Your task to perform on an android device: toggle airplane mode Image 0: 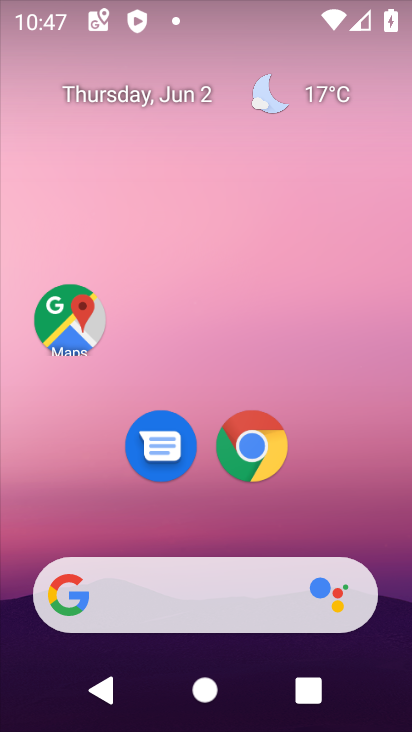
Step 0: drag from (345, 507) to (344, 88)
Your task to perform on an android device: toggle airplane mode Image 1: 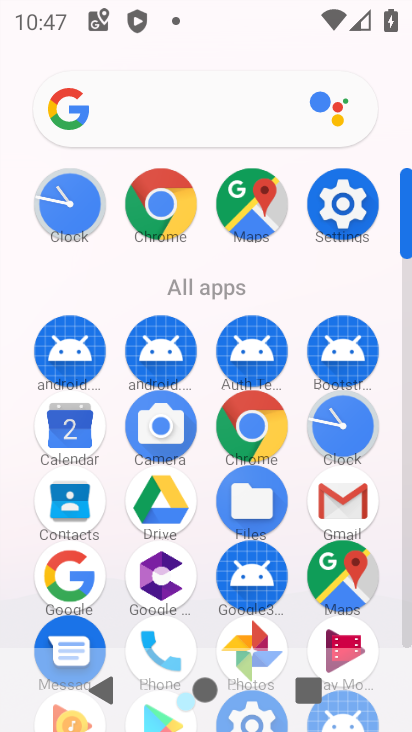
Step 1: click (347, 219)
Your task to perform on an android device: toggle airplane mode Image 2: 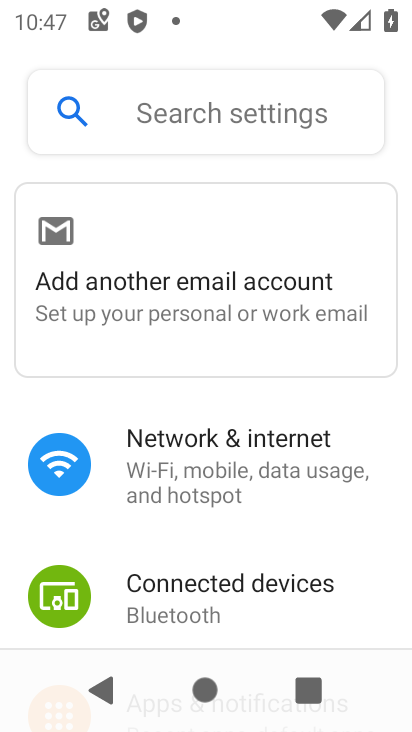
Step 2: drag from (349, 537) to (363, 373)
Your task to perform on an android device: toggle airplane mode Image 3: 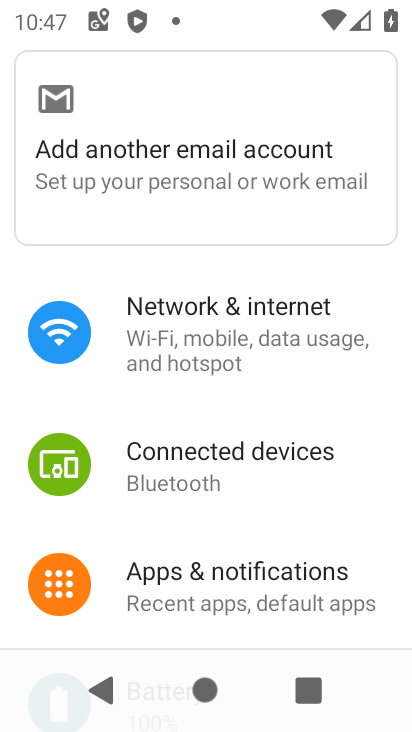
Step 3: drag from (357, 533) to (355, 380)
Your task to perform on an android device: toggle airplane mode Image 4: 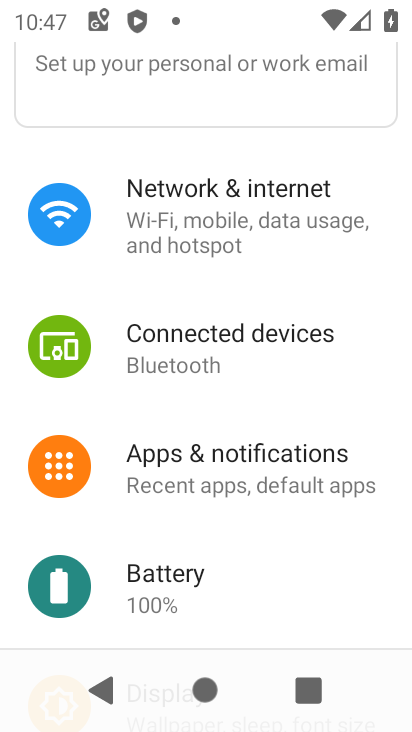
Step 4: drag from (349, 555) to (360, 387)
Your task to perform on an android device: toggle airplane mode Image 5: 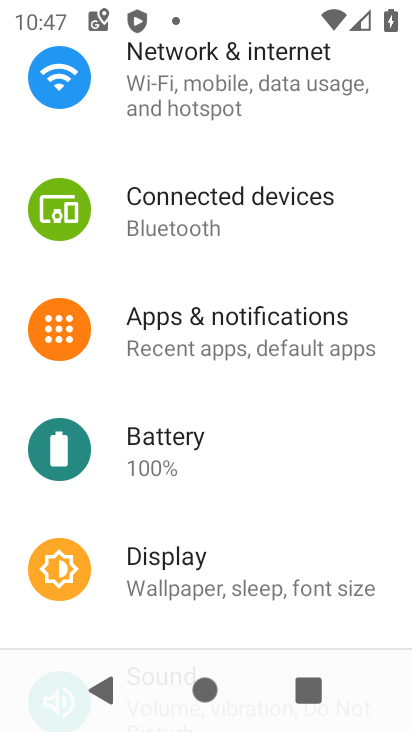
Step 5: drag from (351, 497) to (352, 295)
Your task to perform on an android device: toggle airplane mode Image 6: 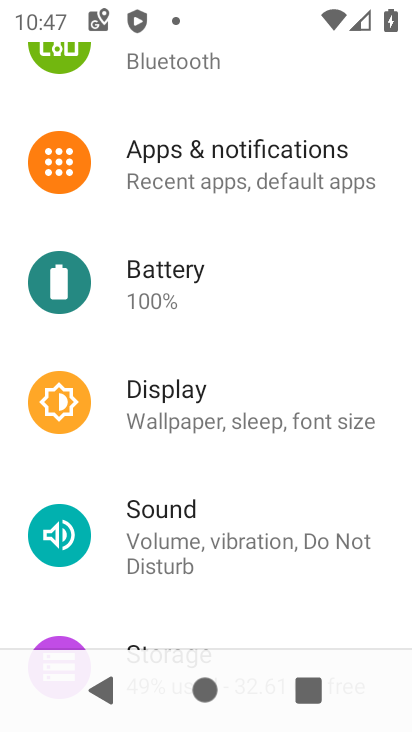
Step 6: drag from (349, 498) to (351, 345)
Your task to perform on an android device: toggle airplane mode Image 7: 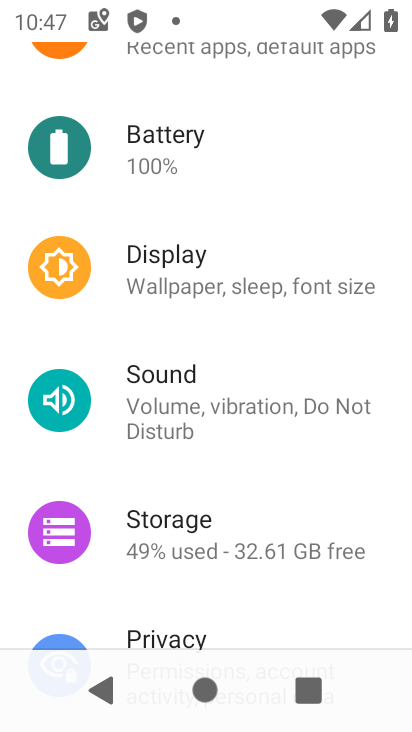
Step 7: drag from (329, 489) to (327, 281)
Your task to perform on an android device: toggle airplane mode Image 8: 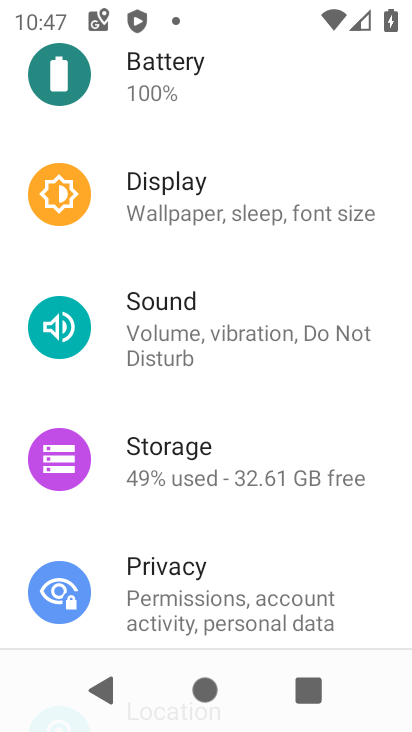
Step 8: drag from (351, 522) to (367, 280)
Your task to perform on an android device: toggle airplane mode Image 9: 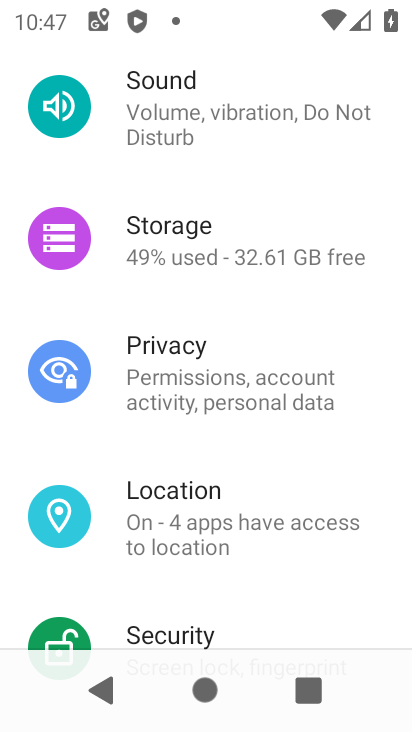
Step 9: drag from (364, 578) to (361, 299)
Your task to perform on an android device: toggle airplane mode Image 10: 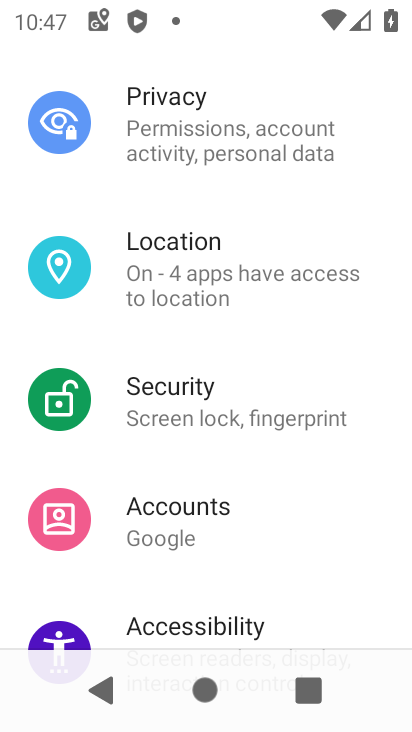
Step 10: drag from (362, 146) to (353, 319)
Your task to perform on an android device: toggle airplane mode Image 11: 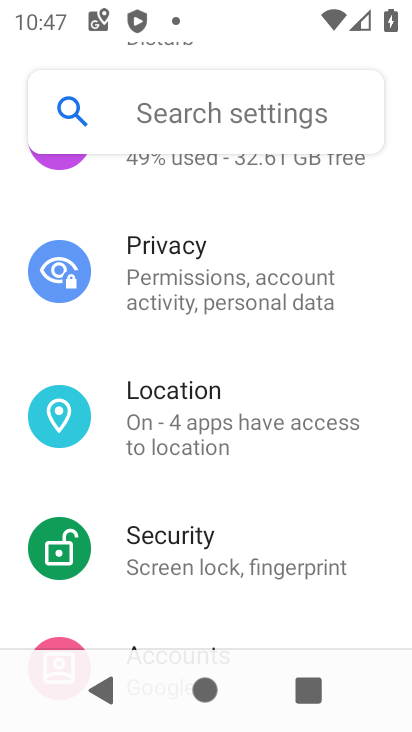
Step 11: drag from (342, 204) to (350, 442)
Your task to perform on an android device: toggle airplane mode Image 12: 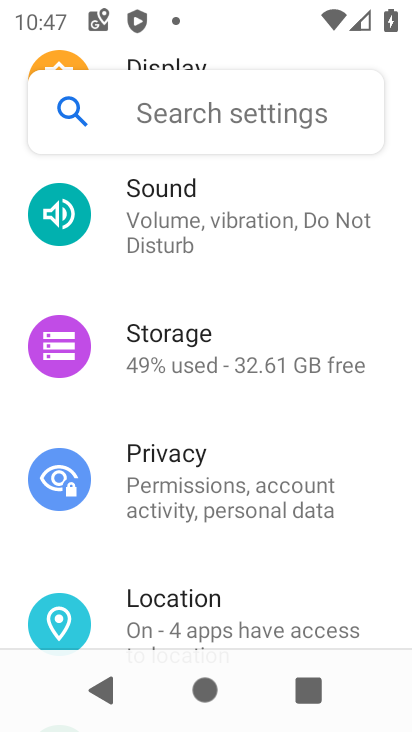
Step 12: drag from (343, 267) to (344, 456)
Your task to perform on an android device: toggle airplane mode Image 13: 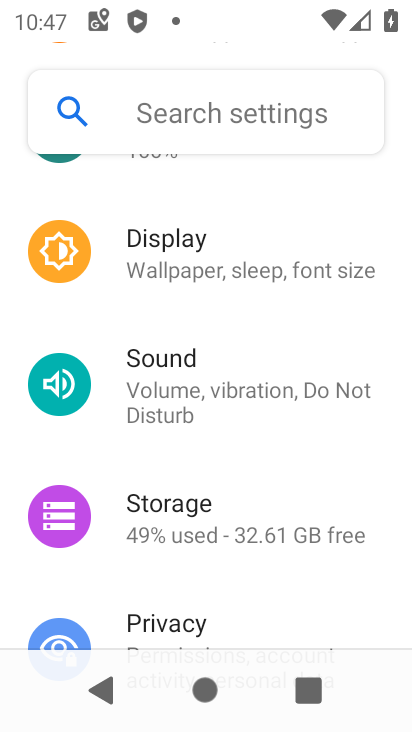
Step 13: drag from (330, 197) to (335, 418)
Your task to perform on an android device: toggle airplane mode Image 14: 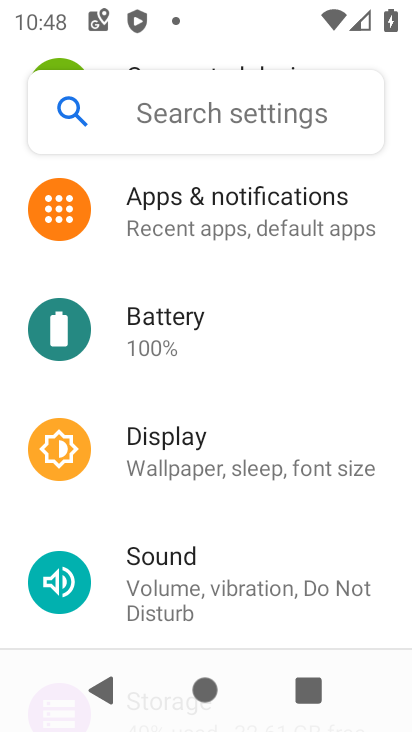
Step 14: drag from (355, 172) to (355, 440)
Your task to perform on an android device: toggle airplane mode Image 15: 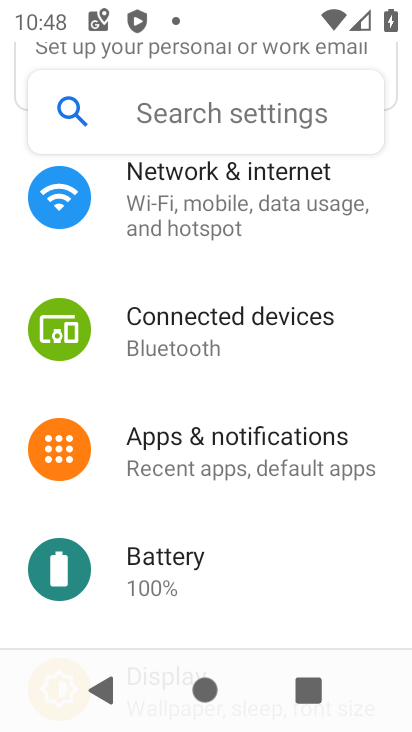
Step 15: drag from (345, 242) to (328, 440)
Your task to perform on an android device: toggle airplane mode Image 16: 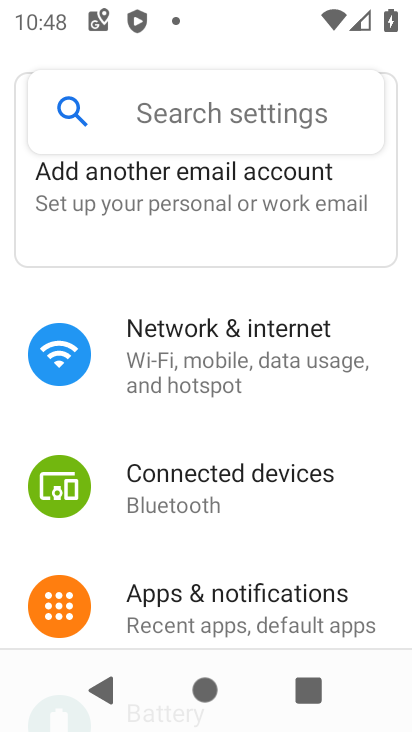
Step 16: click (264, 346)
Your task to perform on an android device: toggle airplane mode Image 17: 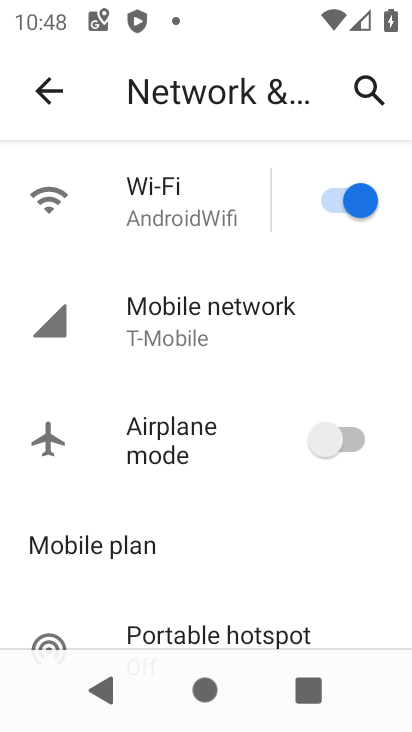
Step 17: click (332, 445)
Your task to perform on an android device: toggle airplane mode Image 18: 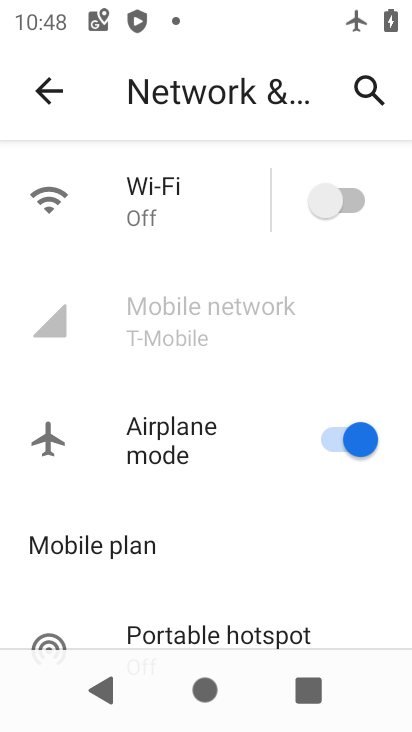
Step 18: task complete